Your task to perform on an android device: Open Google Image 0: 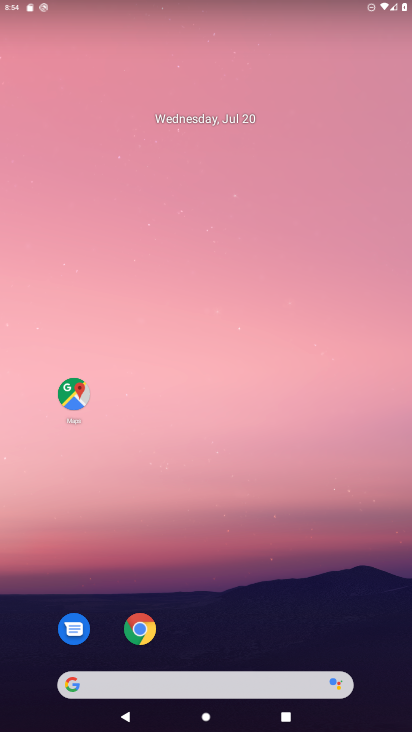
Step 0: click (138, 629)
Your task to perform on an android device: Open Google Image 1: 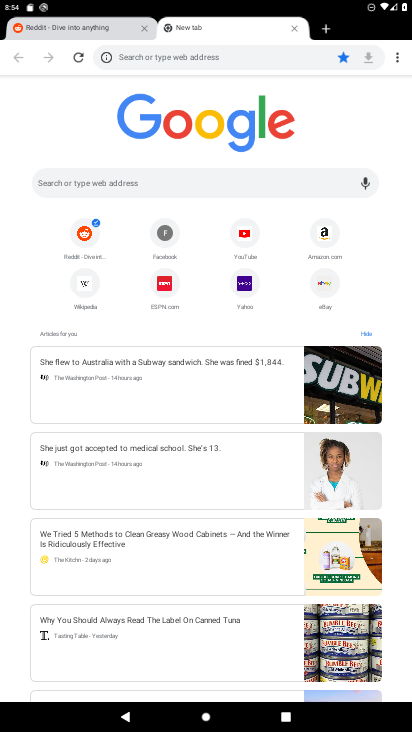
Step 1: task complete